Your task to perform on an android device: Open accessibility settings Image 0: 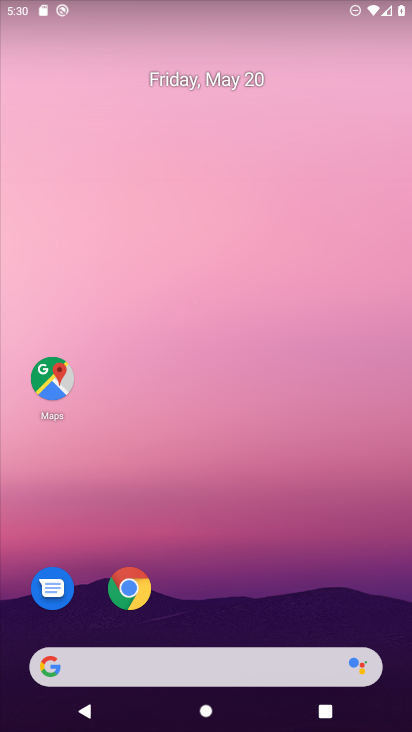
Step 0: click (58, 387)
Your task to perform on an android device: Open accessibility settings Image 1: 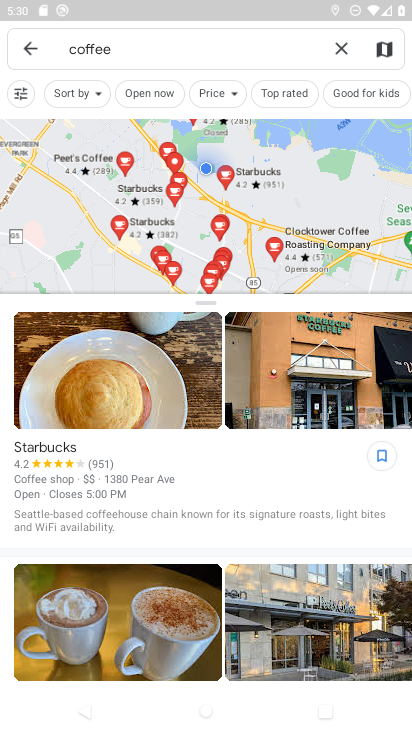
Step 1: click (339, 44)
Your task to perform on an android device: Open accessibility settings Image 2: 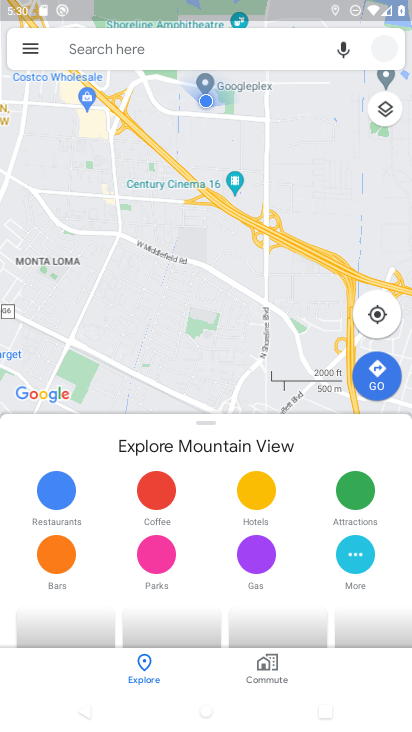
Step 2: click (102, 50)
Your task to perform on an android device: Open accessibility settings Image 3: 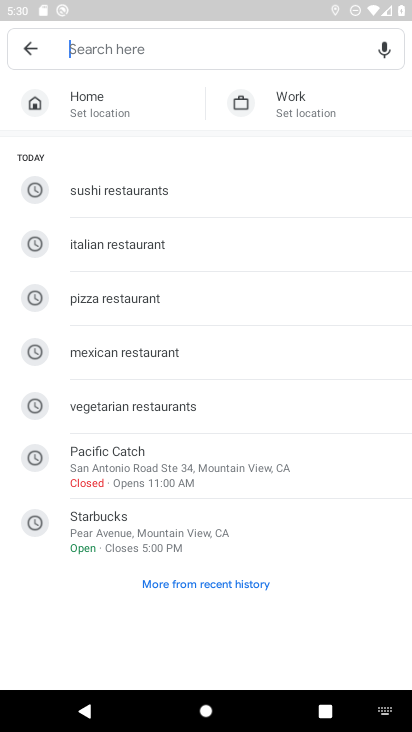
Step 3: click (202, 194)
Your task to perform on an android device: Open accessibility settings Image 4: 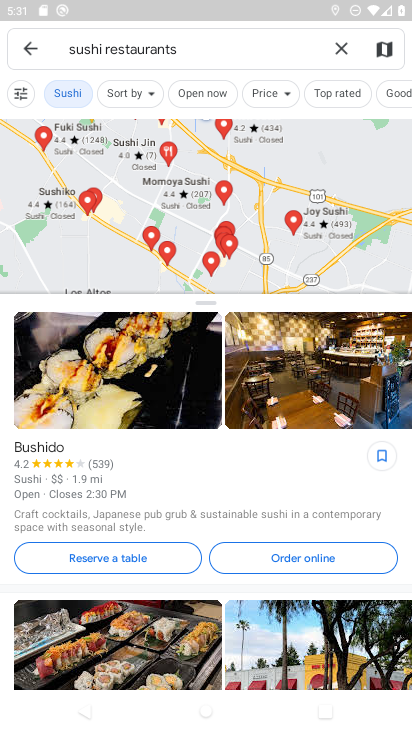
Step 4: task complete